Your task to perform on an android device: Open Google Chrome and open the bookmarks view Image 0: 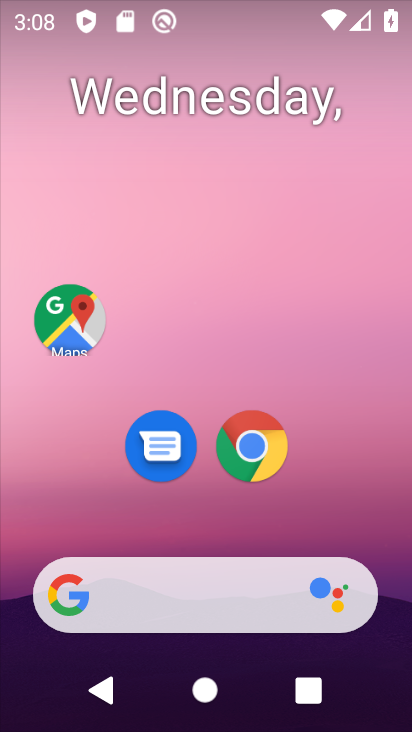
Step 0: click (261, 445)
Your task to perform on an android device: Open Google Chrome and open the bookmarks view Image 1: 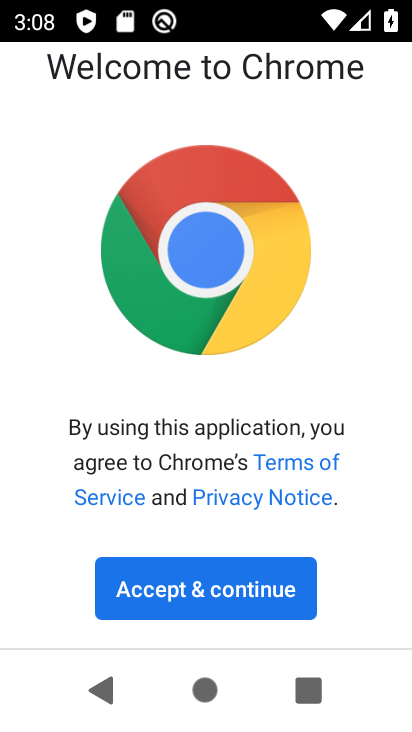
Step 1: click (262, 583)
Your task to perform on an android device: Open Google Chrome and open the bookmarks view Image 2: 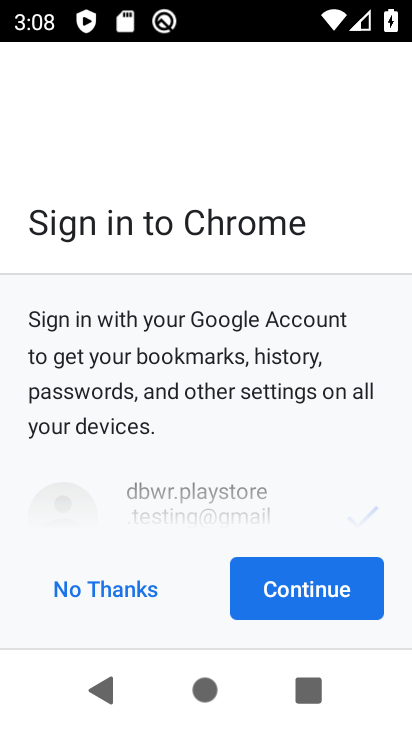
Step 2: click (267, 590)
Your task to perform on an android device: Open Google Chrome and open the bookmarks view Image 3: 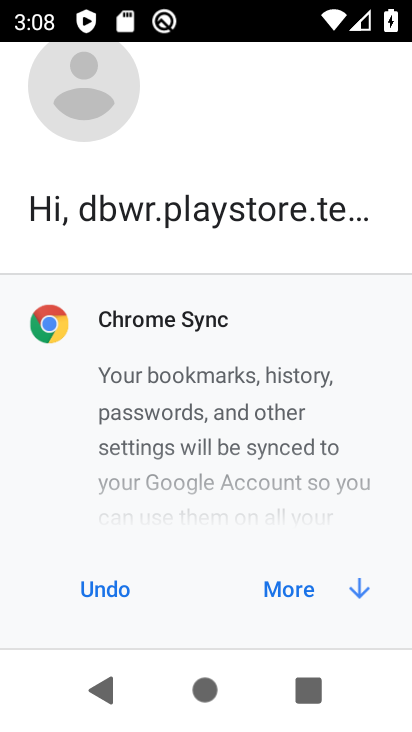
Step 3: click (277, 601)
Your task to perform on an android device: Open Google Chrome and open the bookmarks view Image 4: 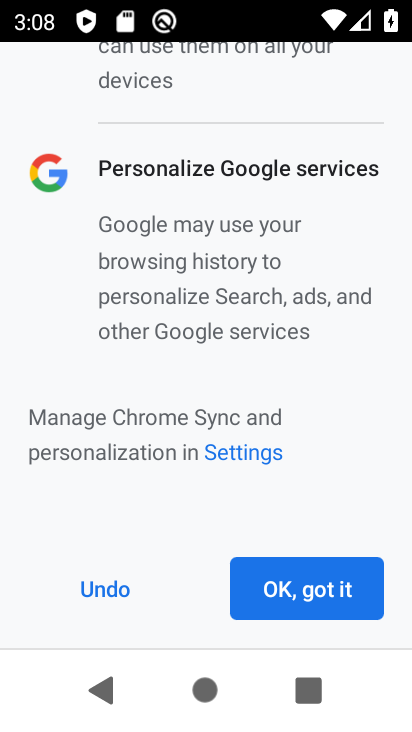
Step 4: click (277, 601)
Your task to perform on an android device: Open Google Chrome and open the bookmarks view Image 5: 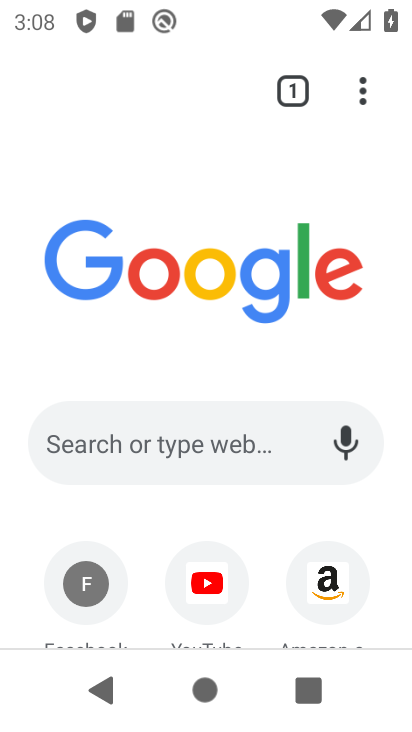
Step 5: click (374, 89)
Your task to perform on an android device: Open Google Chrome and open the bookmarks view Image 6: 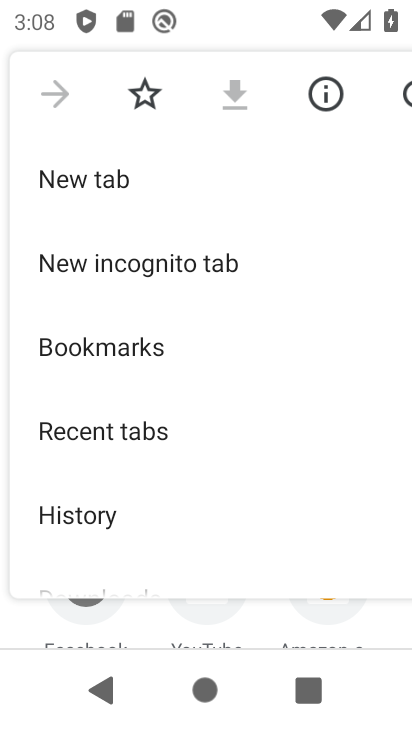
Step 6: drag from (259, 561) to (325, 4)
Your task to perform on an android device: Open Google Chrome and open the bookmarks view Image 7: 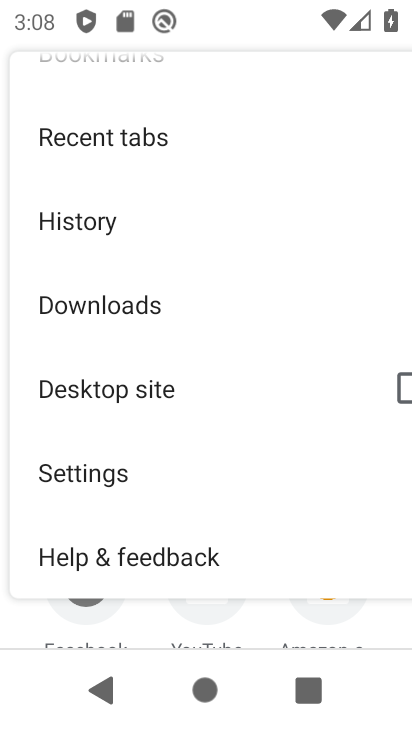
Step 7: click (74, 483)
Your task to perform on an android device: Open Google Chrome and open the bookmarks view Image 8: 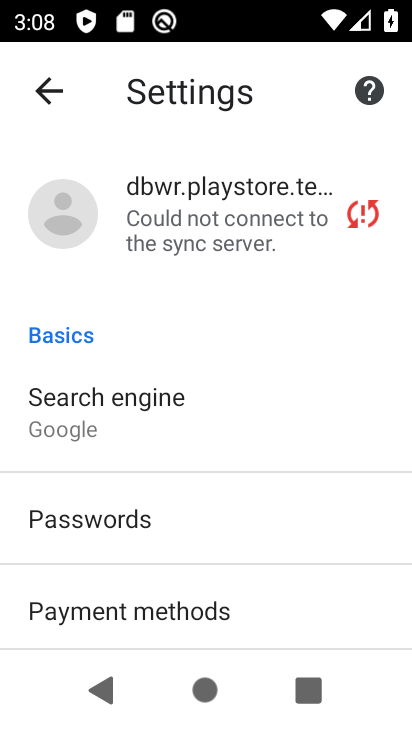
Step 8: drag from (250, 497) to (291, 116)
Your task to perform on an android device: Open Google Chrome and open the bookmarks view Image 9: 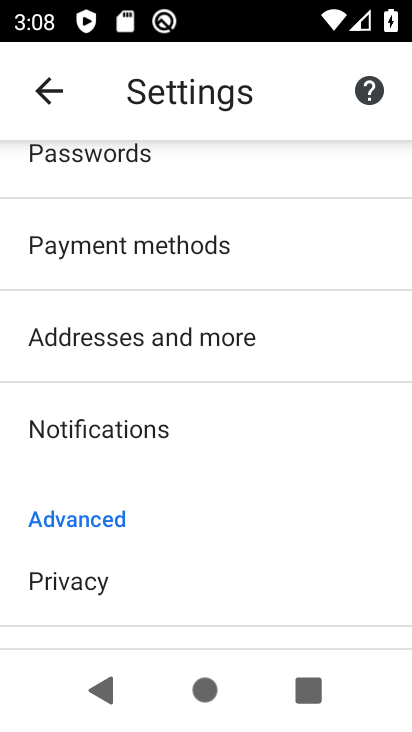
Step 9: click (41, 94)
Your task to perform on an android device: Open Google Chrome and open the bookmarks view Image 10: 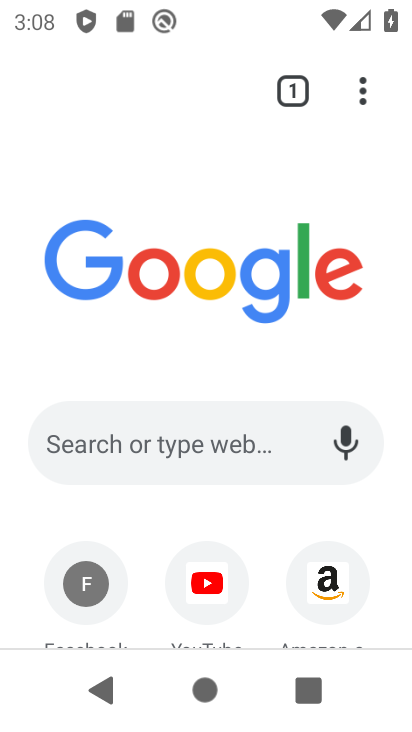
Step 10: click (355, 77)
Your task to perform on an android device: Open Google Chrome and open the bookmarks view Image 11: 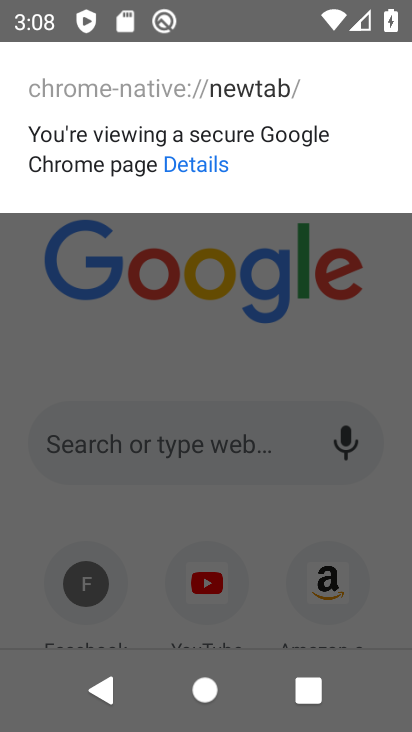
Step 11: click (298, 352)
Your task to perform on an android device: Open Google Chrome and open the bookmarks view Image 12: 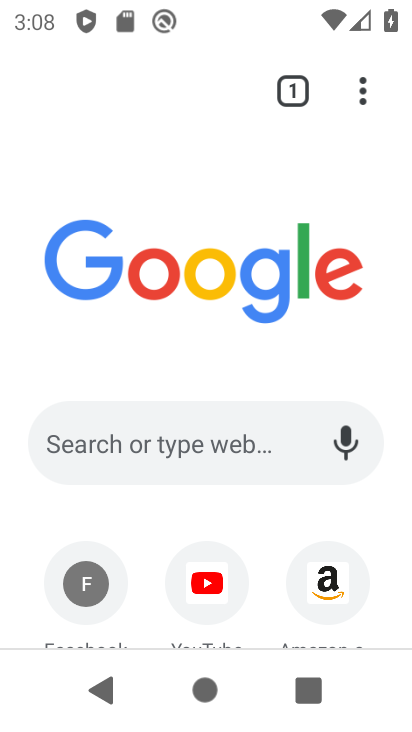
Step 12: click (363, 90)
Your task to perform on an android device: Open Google Chrome and open the bookmarks view Image 13: 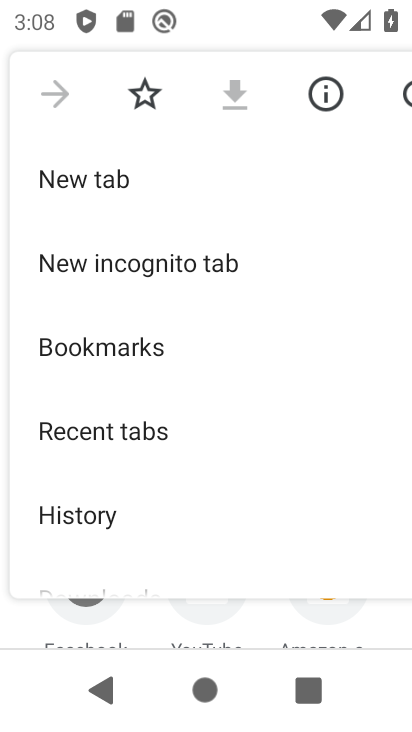
Step 13: click (81, 343)
Your task to perform on an android device: Open Google Chrome and open the bookmarks view Image 14: 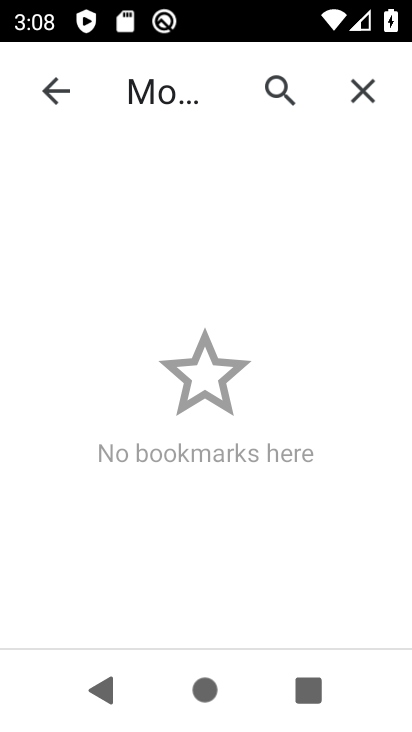
Step 14: task complete